Your task to perform on an android device: Open settings Image 0: 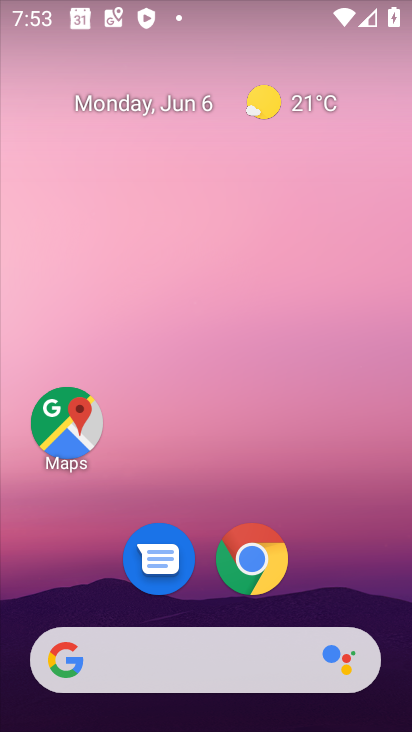
Step 0: drag from (210, 726) to (213, 49)
Your task to perform on an android device: Open settings Image 1: 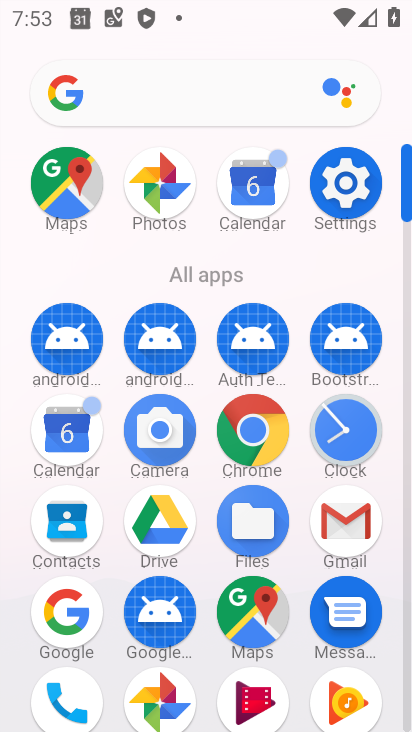
Step 1: click (349, 187)
Your task to perform on an android device: Open settings Image 2: 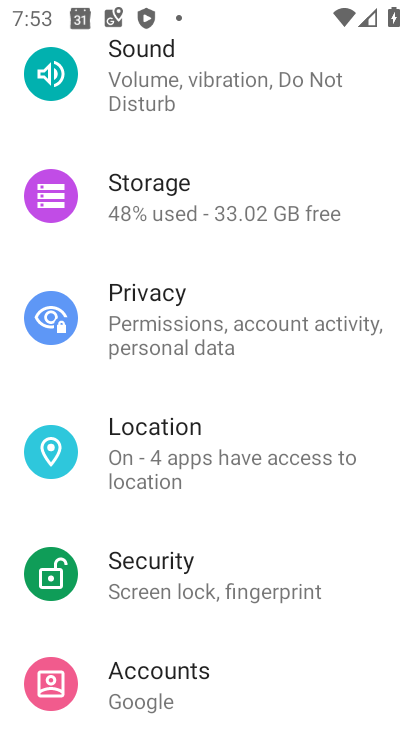
Step 2: task complete